Your task to perform on an android device: Go to battery settings Image 0: 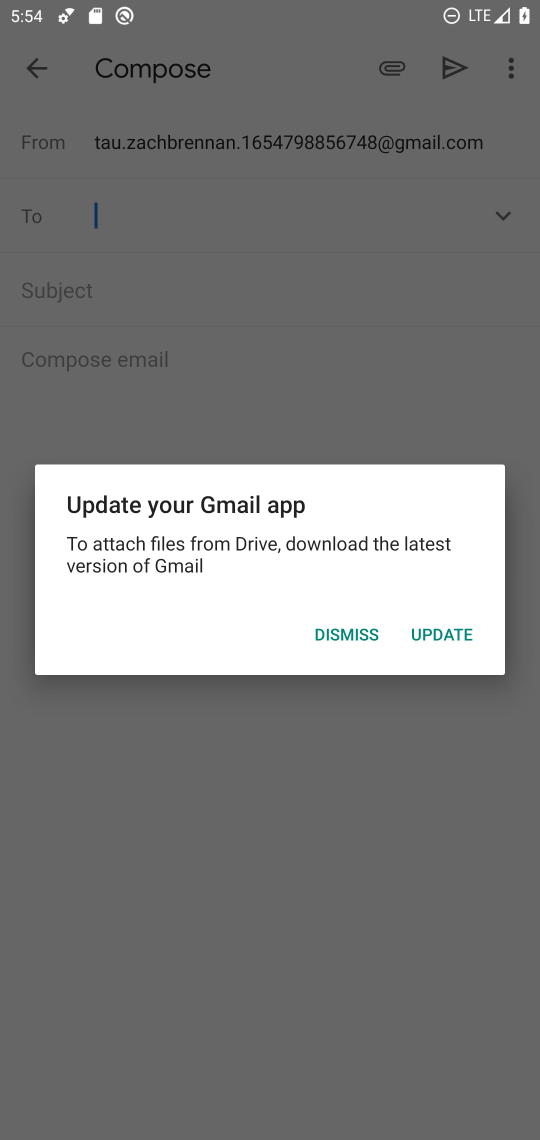
Step 0: press home button
Your task to perform on an android device: Go to battery settings Image 1: 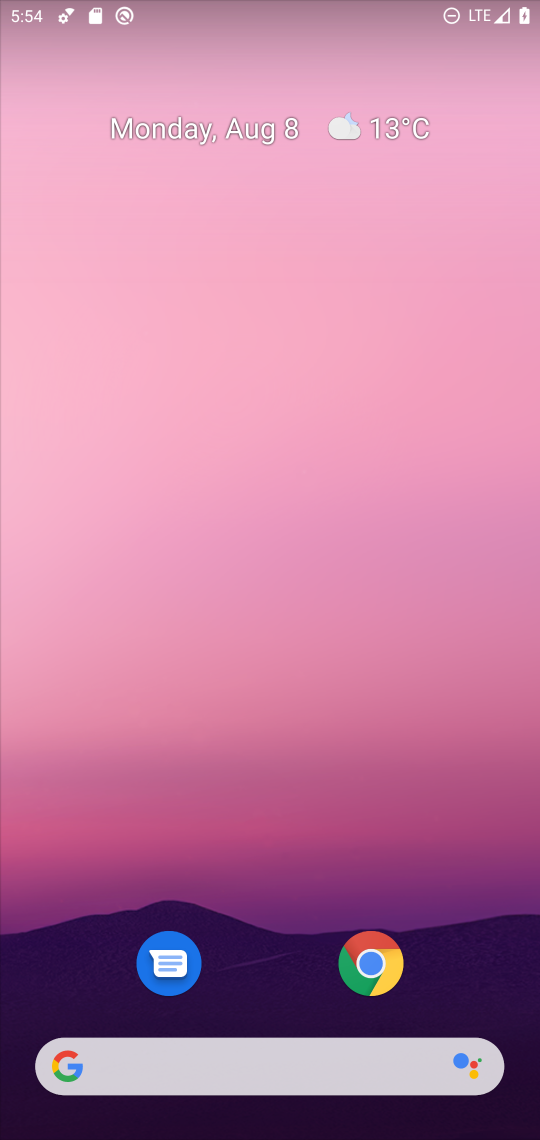
Step 1: drag from (275, 855) to (371, 26)
Your task to perform on an android device: Go to battery settings Image 2: 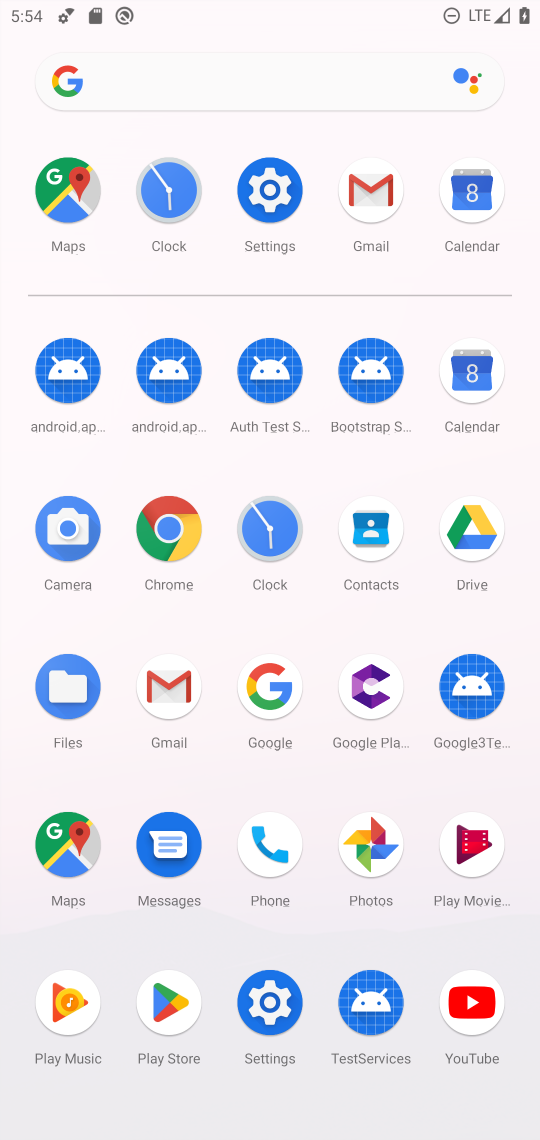
Step 2: click (265, 1001)
Your task to perform on an android device: Go to battery settings Image 3: 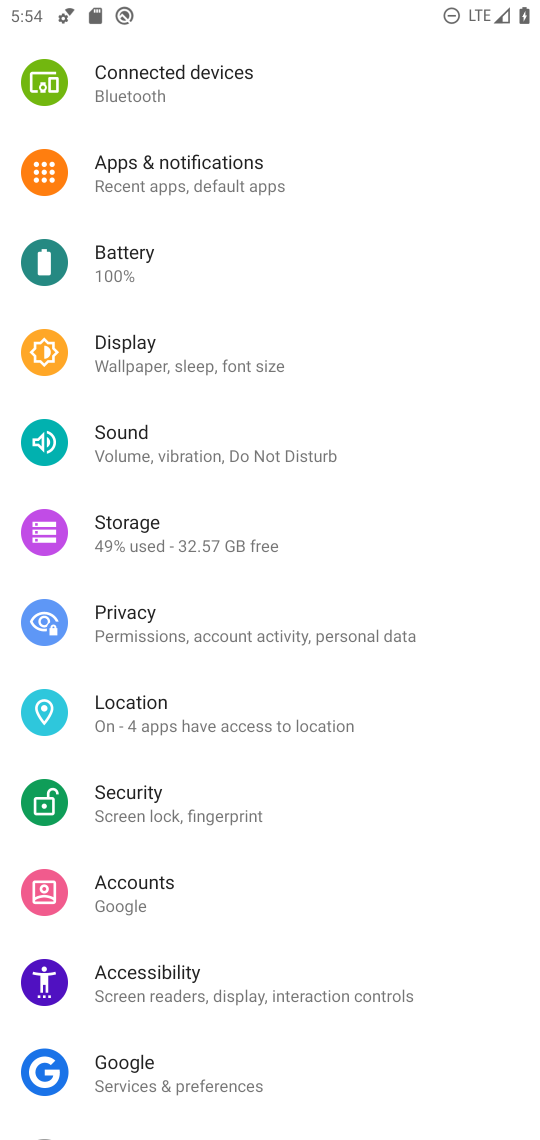
Step 3: click (178, 248)
Your task to perform on an android device: Go to battery settings Image 4: 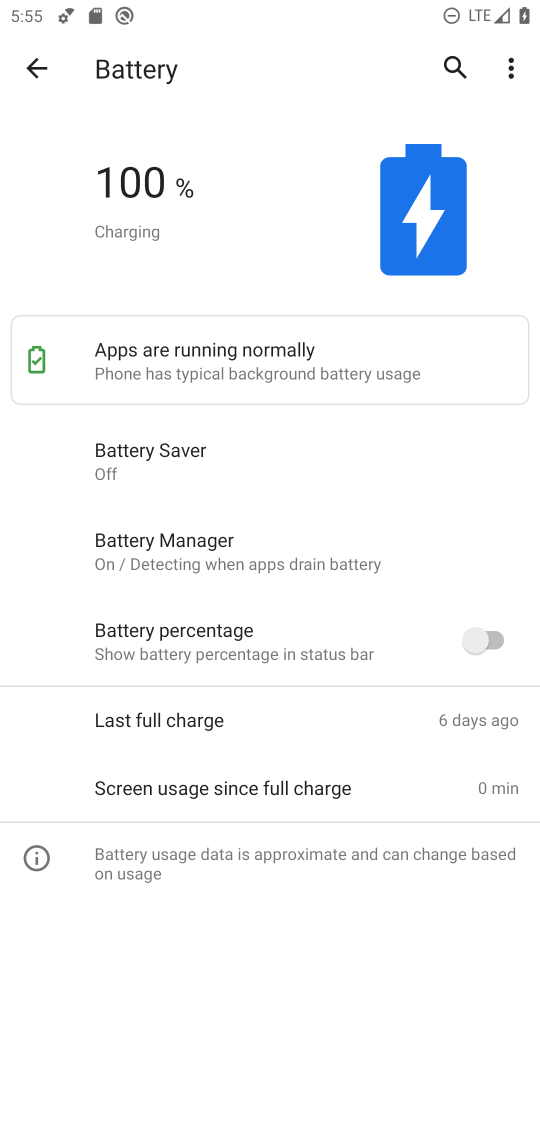
Step 4: task complete